Your task to perform on an android device: toggle notifications settings in the gmail app Image 0: 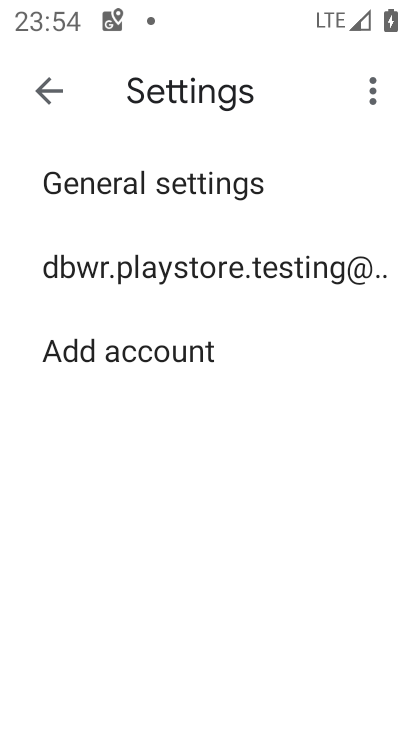
Step 0: click (270, 276)
Your task to perform on an android device: toggle notifications settings in the gmail app Image 1: 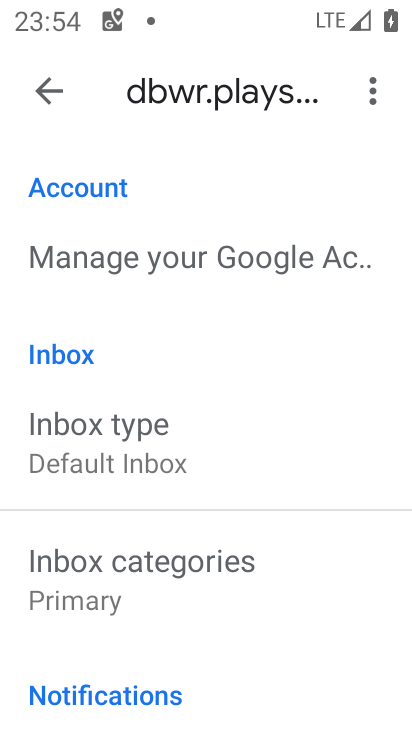
Step 1: drag from (156, 633) to (222, 501)
Your task to perform on an android device: toggle notifications settings in the gmail app Image 2: 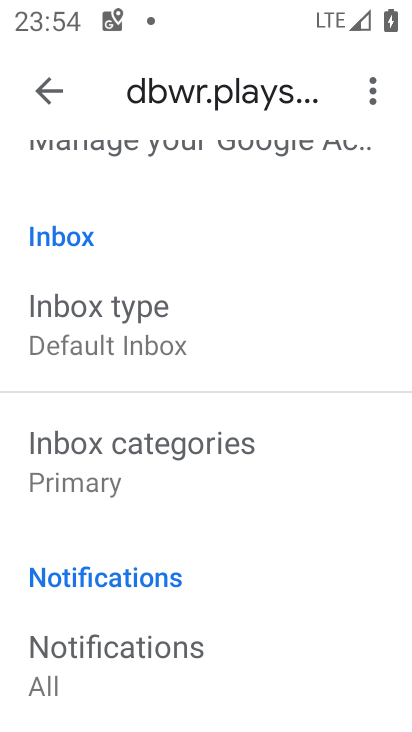
Step 2: drag from (186, 683) to (234, 536)
Your task to perform on an android device: toggle notifications settings in the gmail app Image 3: 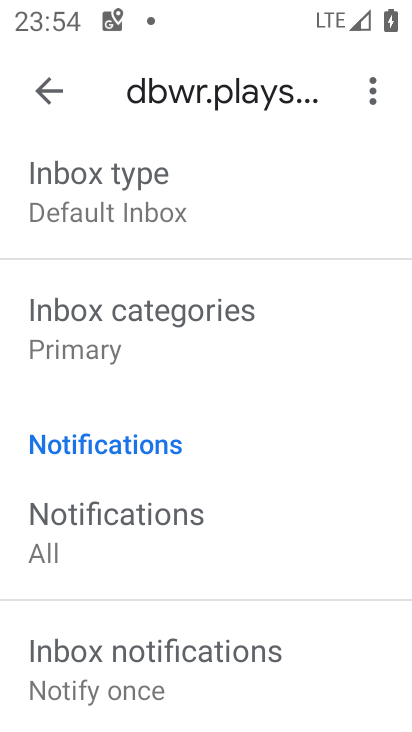
Step 3: drag from (165, 702) to (256, 531)
Your task to perform on an android device: toggle notifications settings in the gmail app Image 4: 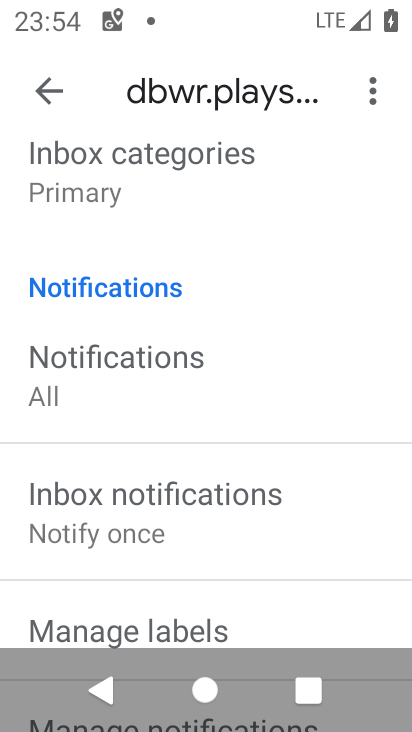
Step 4: drag from (249, 623) to (309, 407)
Your task to perform on an android device: toggle notifications settings in the gmail app Image 5: 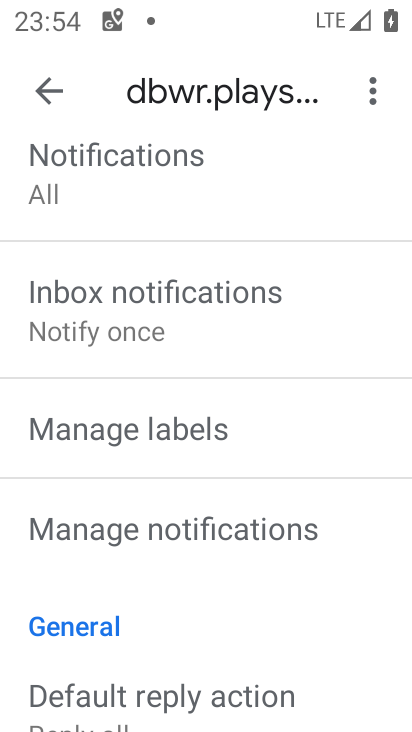
Step 5: click (232, 525)
Your task to perform on an android device: toggle notifications settings in the gmail app Image 6: 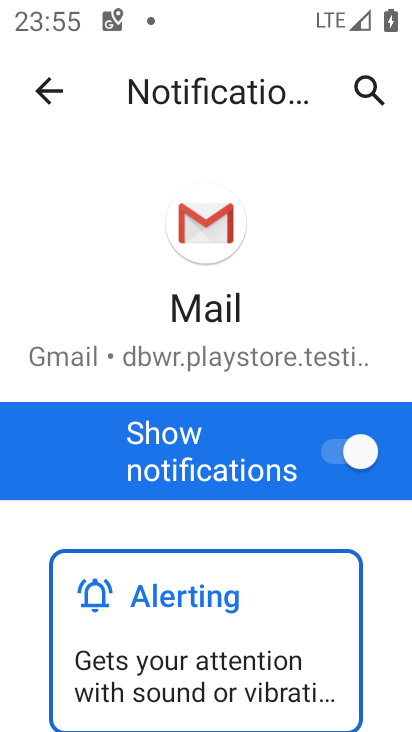
Step 6: click (335, 445)
Your task to perform on an android device: toggle notifications settings in the gmail app Image 7: 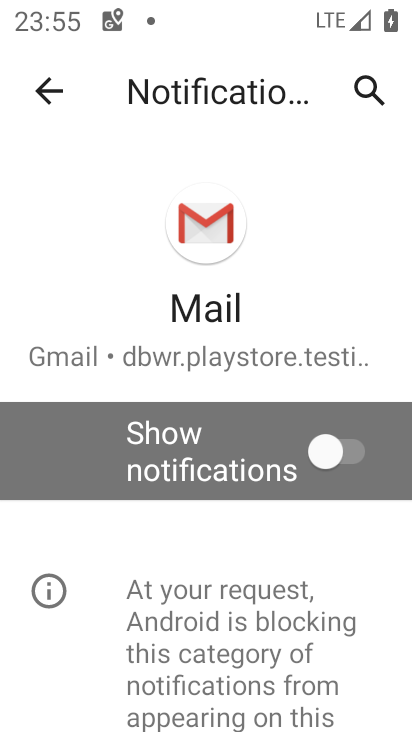
Step 7: task complete